Your task to perform on an android device: Clear the shopping cart on amazon. Search for "macbook pro 13 inch" on amazon, select the first entry, add it to the cart, then select checkout. Image 0: 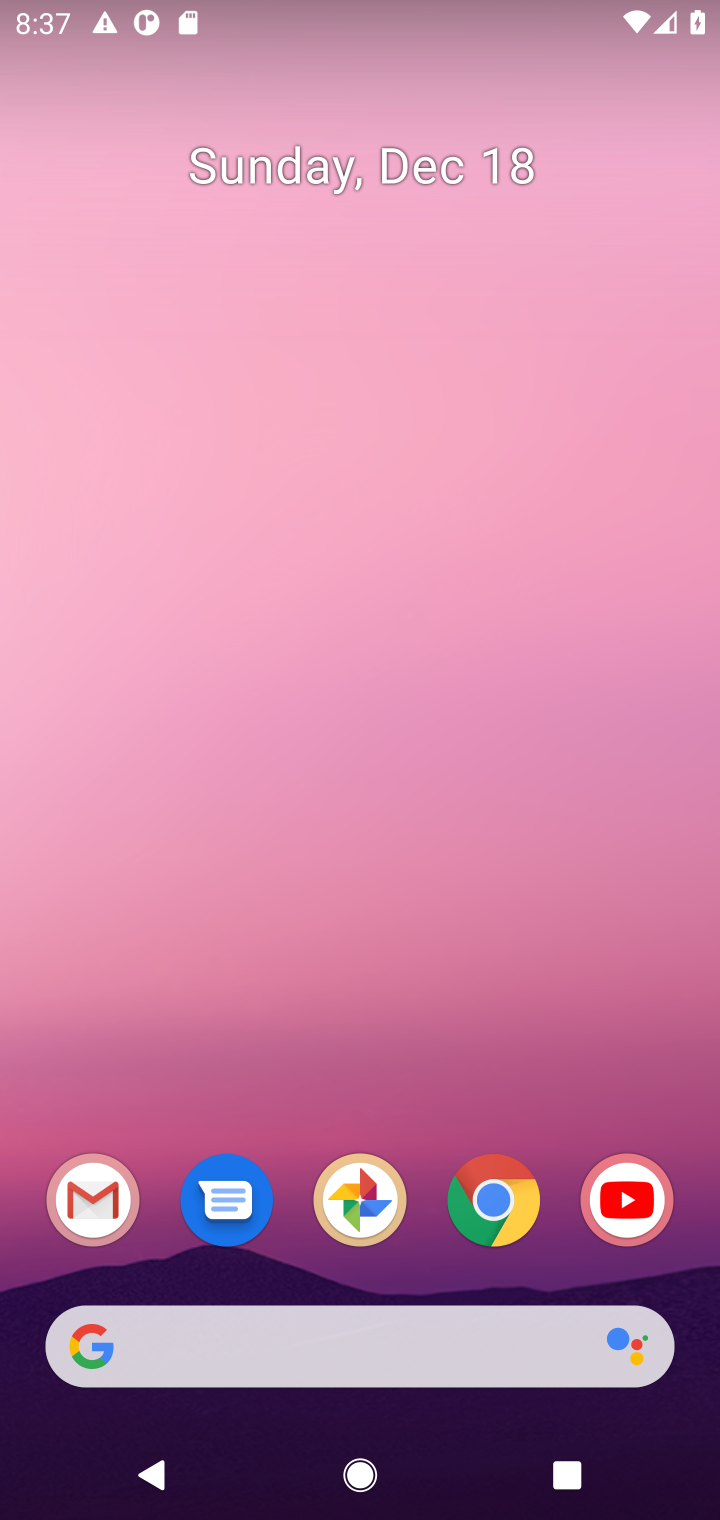
Step 0: click (501, 1204)
Your task to perform on an android device: Clear the shopping cart on amazon. Search for "macbook pro 13 inch" on amazon, select the first entry, add it to the cart, then select checkout. Image 1: 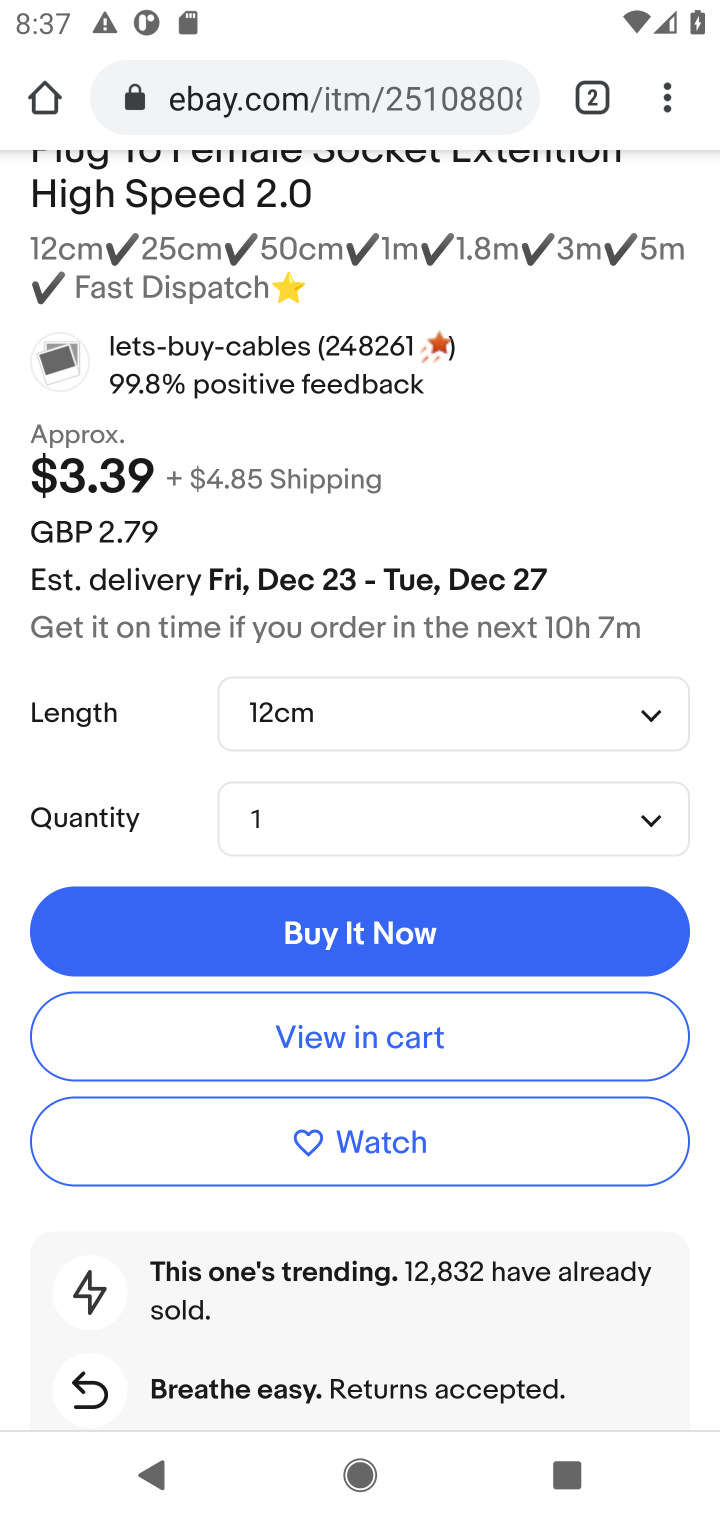
Step 1: click (251, 104)
Your task to perform on an android device: Clear the shopping cart on amazon. Search for "macbook pro 13 inch" on amazon, select the first entry, add it to the cart, then select checkout. Image 2: 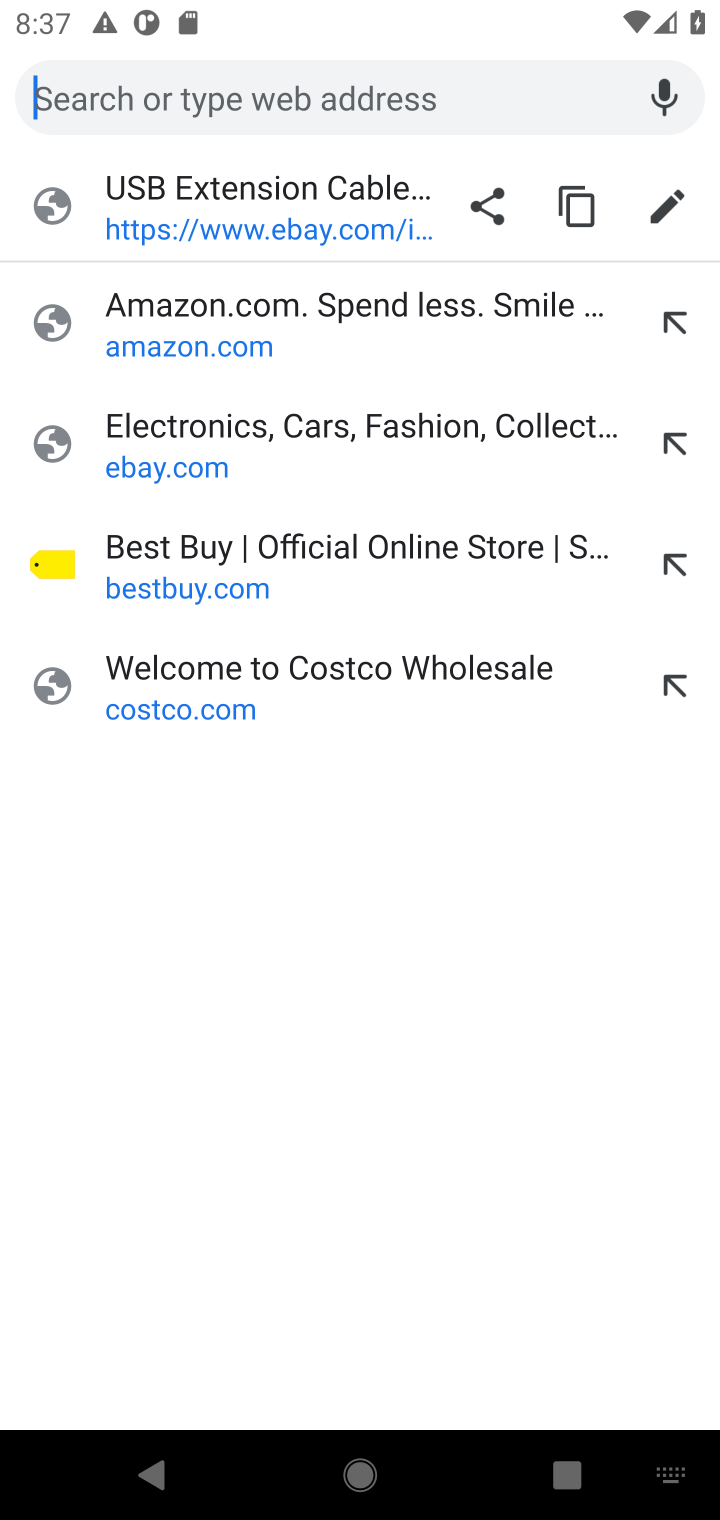
Step 2: click (161, 336)
Your task to perform on an android device: Clear the shopping cart on amazon. Search for "macbook pro 13 inch" on amazon, select the first entry, add it to the cart, then select checkout. Image 3: 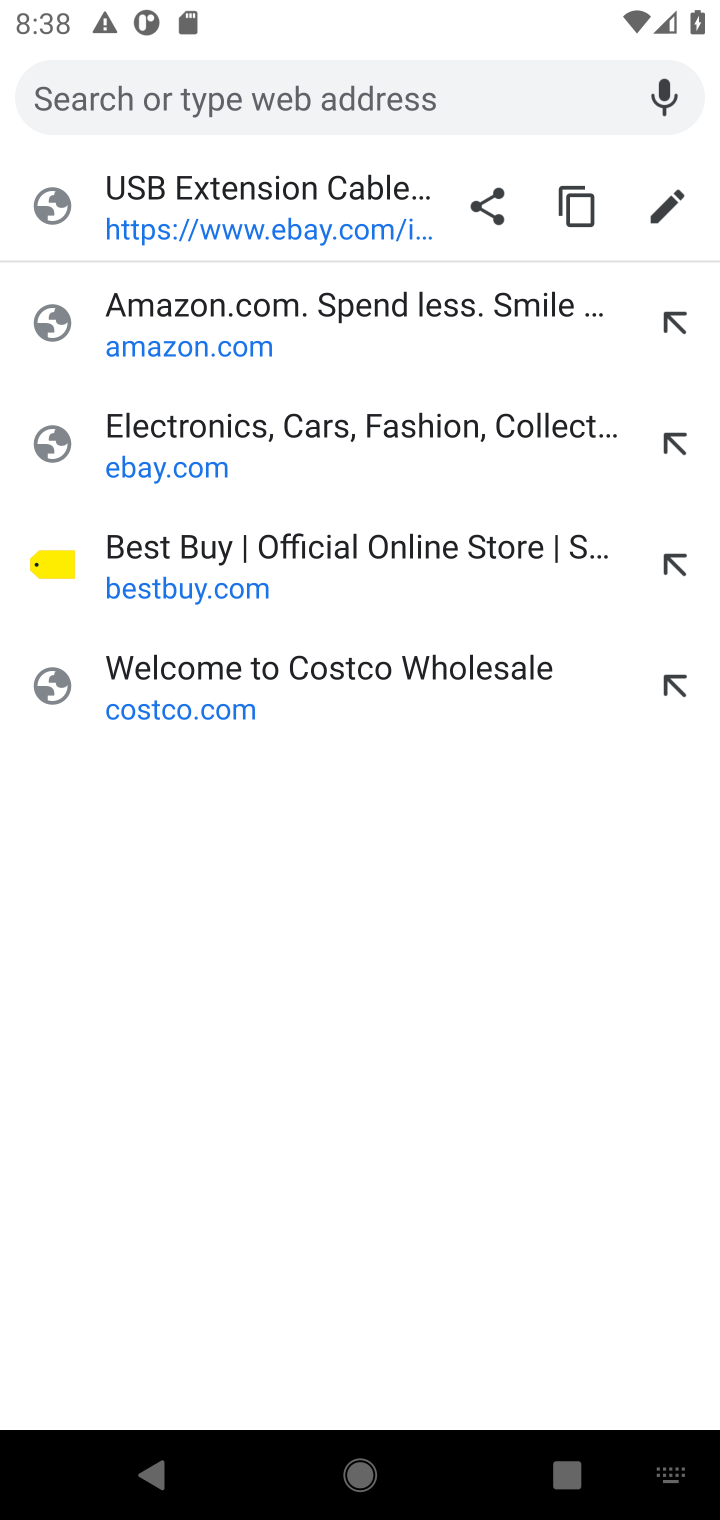
Step 3: click (161, 338)
Your task to perform on an android device: Clear the shopping cart on amazon. Search for "macbook pro 13 inch" on amazon, select the first entry, add it to the cart, then select checkout. Image 4: 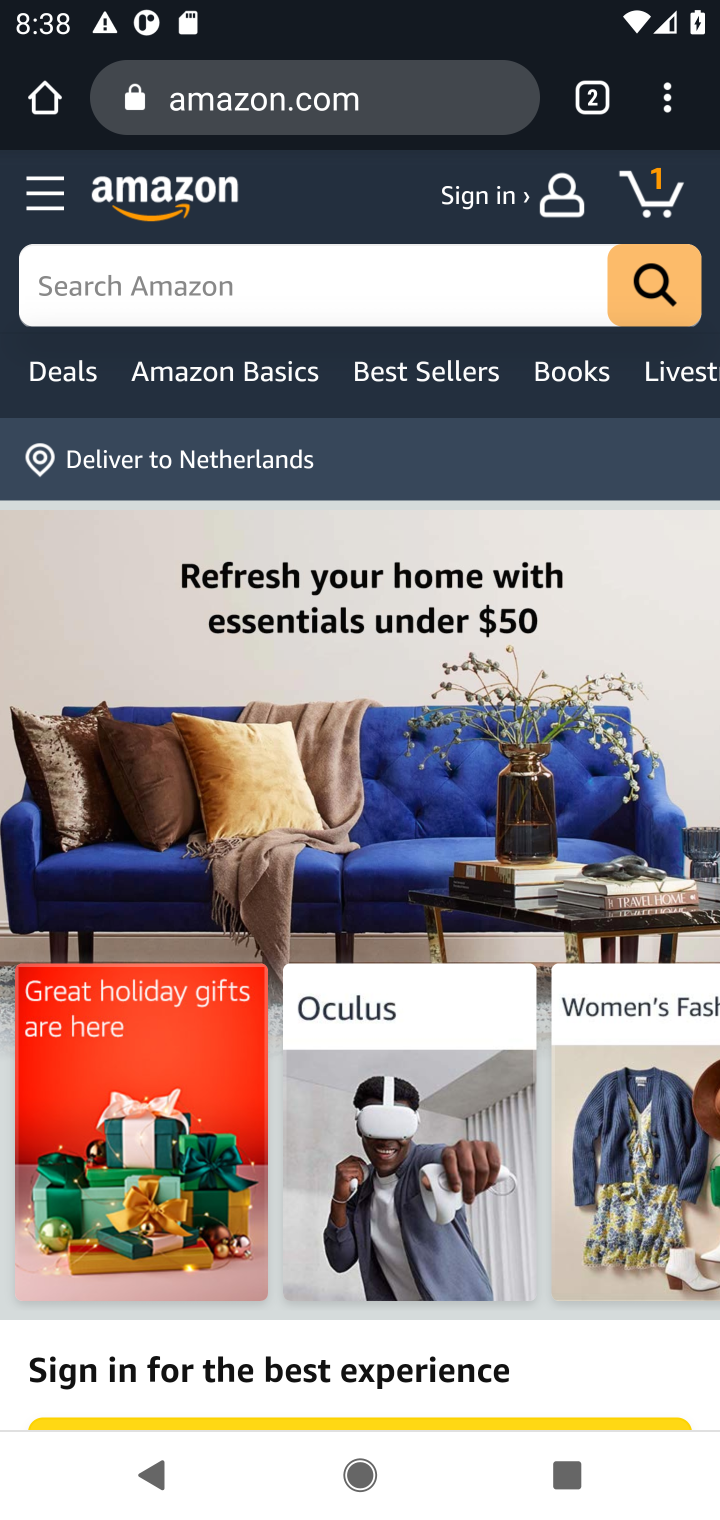
Step 4: click (662, 192)
Your task to perform on an android device: Clear the shopping cart on amazon. Search for "macbook pro 13 inch" on amazon, select the first entry, add it to the cart, then select checkout. Image 5: 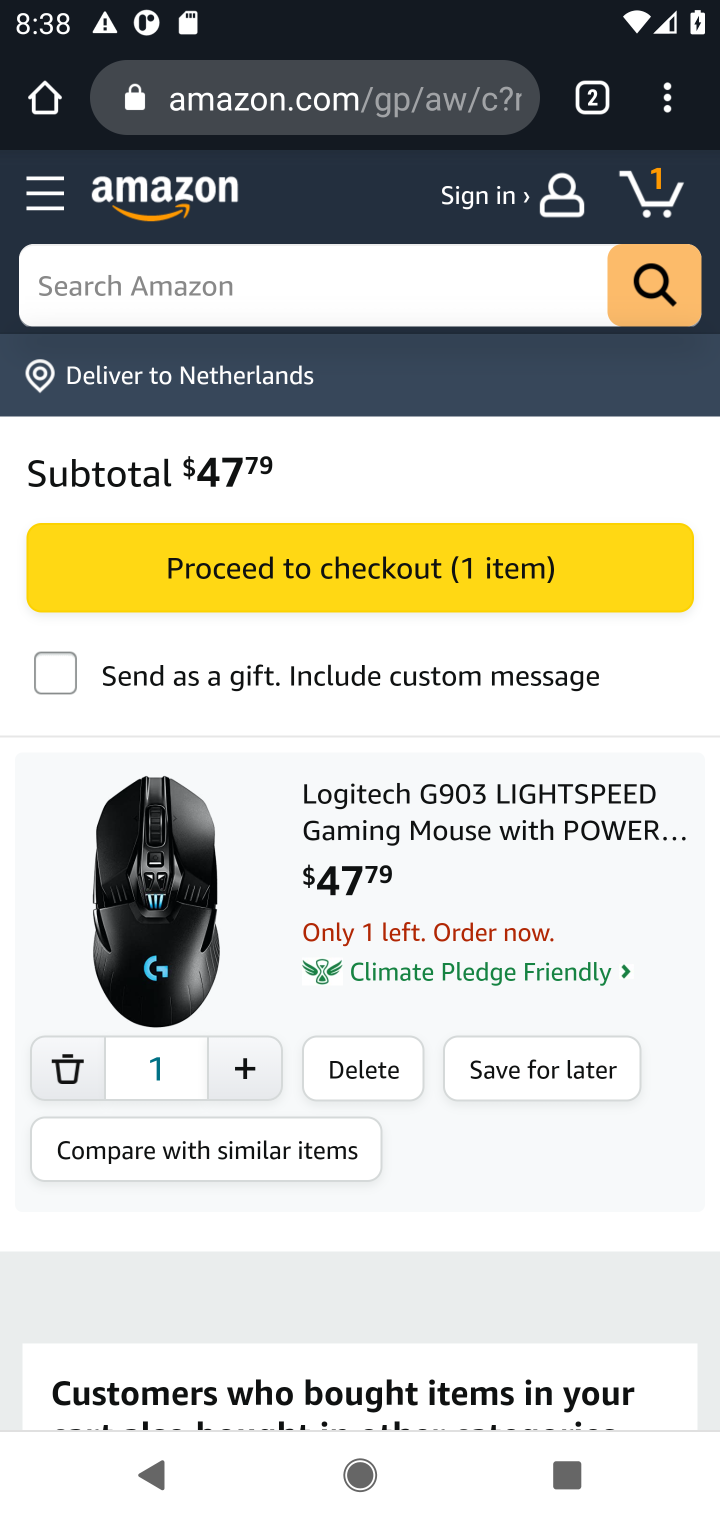
Step 5: click (358, 1059)
Your task to perform on an android device: Clear the shopping cart on amazon. Search for "macbook pro 13 inch" on amazon, select the first entry, add it to the cart, then select checkout. Image 6: 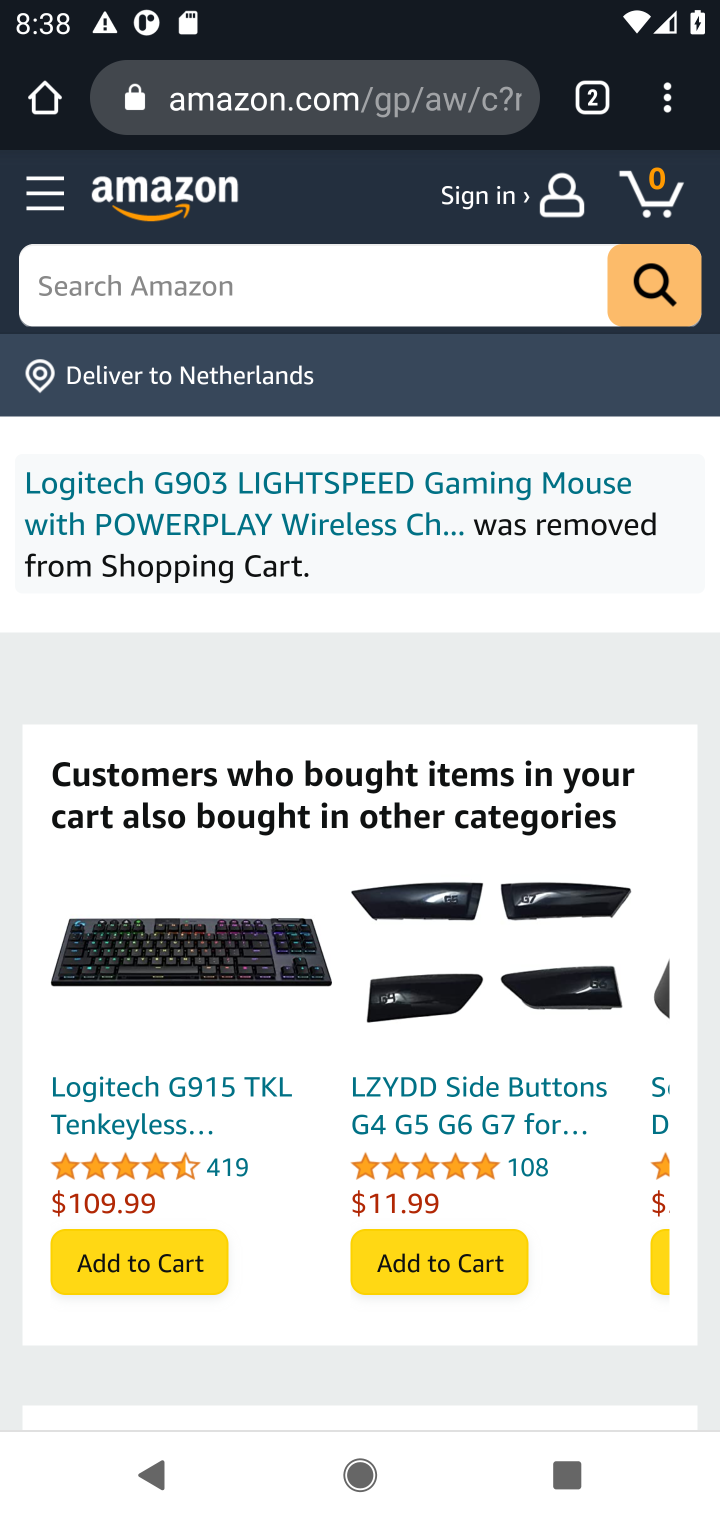
Step 6: click (56, 297)
Your task to perform on an android device: Clear the shopping cart on amazon. Search for "macbook pro 13 inch" on amazon, select the first entry, add it to the cart, then select checkout. Image 7: 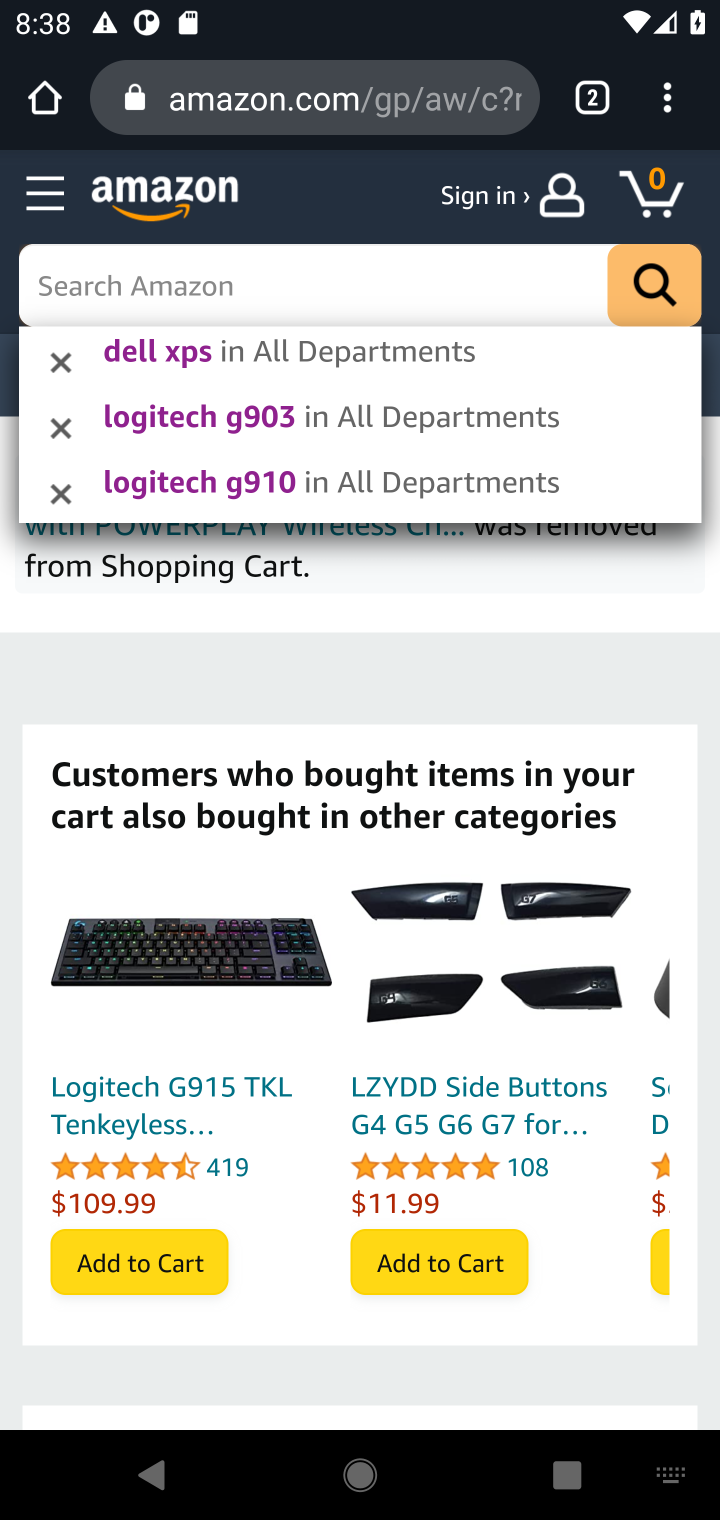
Step 7: type "macbook pro 13 inch"
Your task to perform on an android device: Clear the shopping cart on amazon. Search for "macbook pro 13 inch" on amazon, select the first entry, add it to the cart, then select checkout. Image 8: 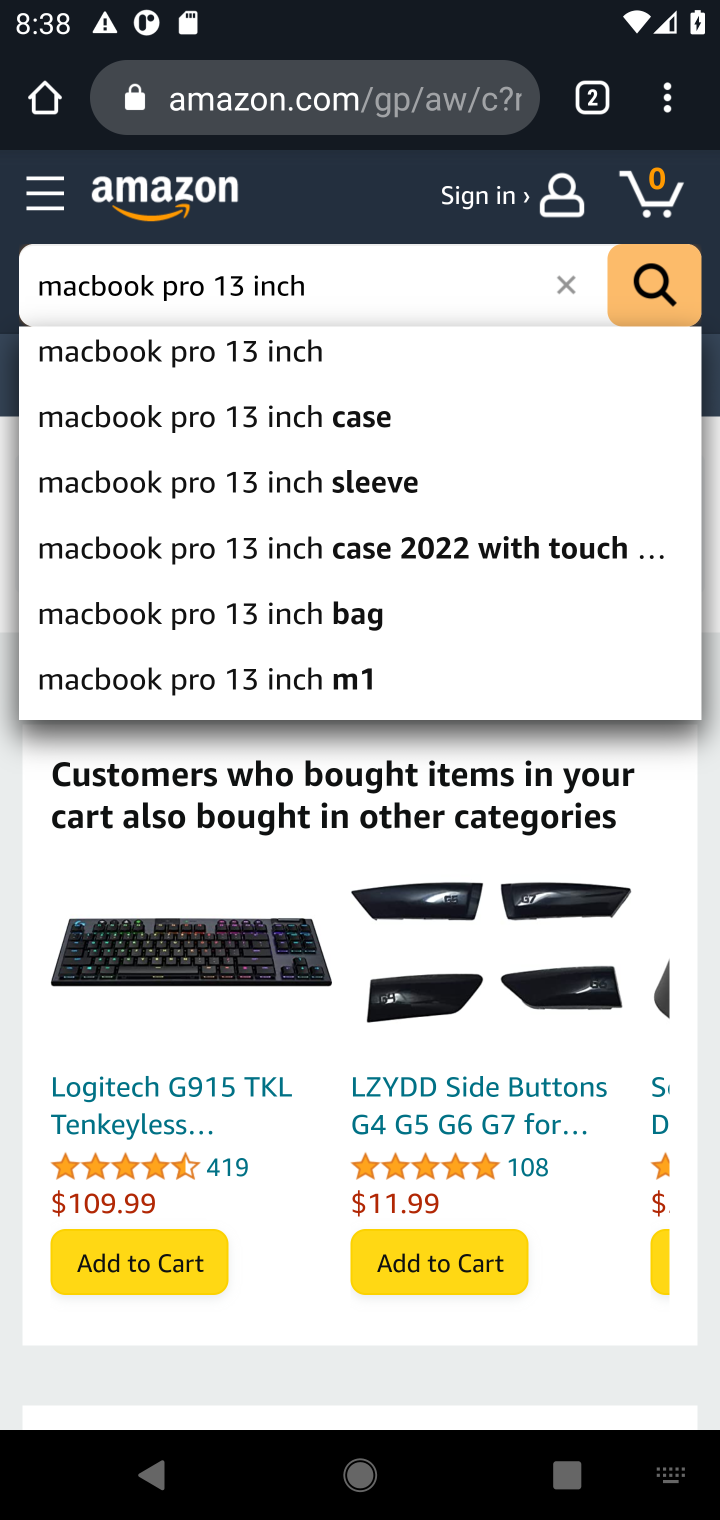
Step 8: click (152, 363)
Your task to perform on an android device: Clear the shopping cart on amazon. Search for "macbook pro 13 inch" on amazon, select the first entry, add it to the cart, then select checkout. Image 9: 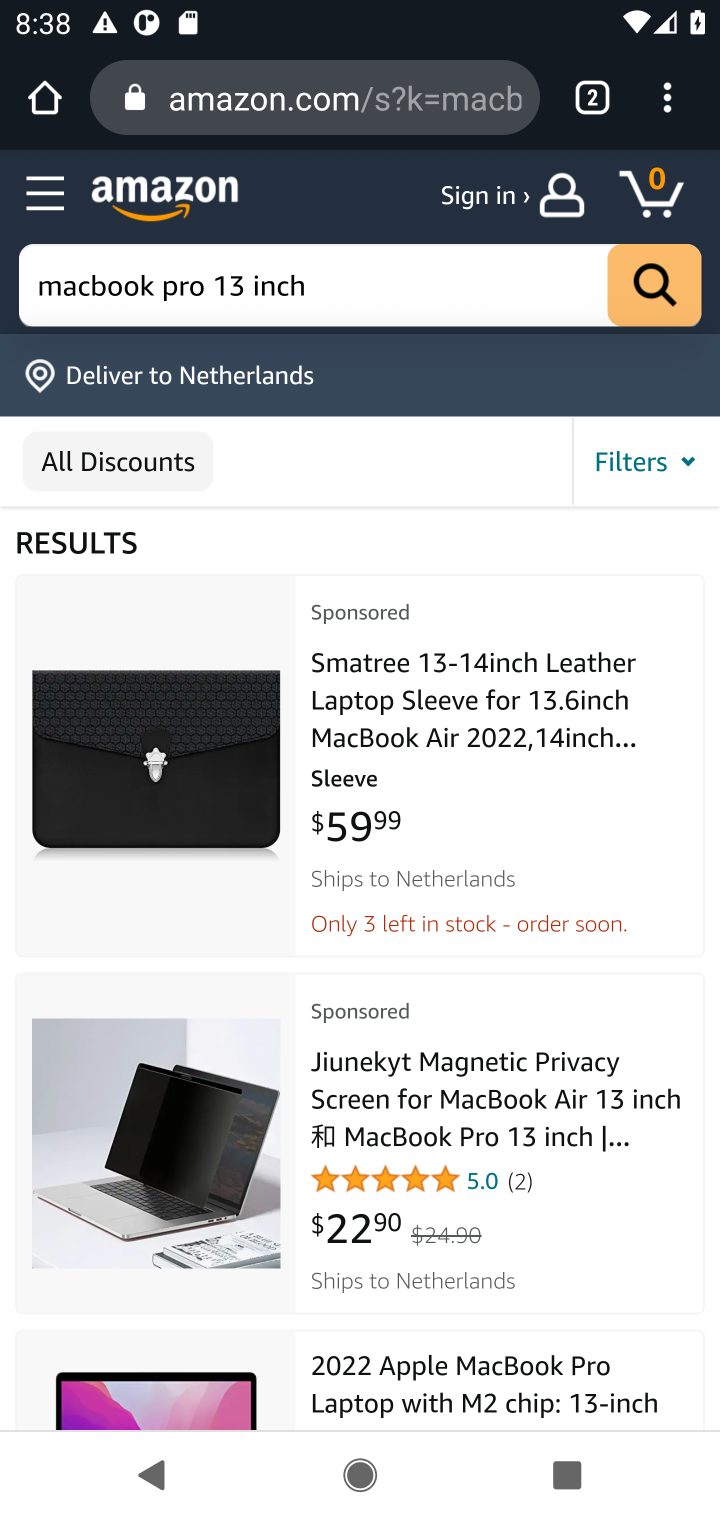
Step 9: task complete